Your task to perform on an android device: Go to settings Image 0: 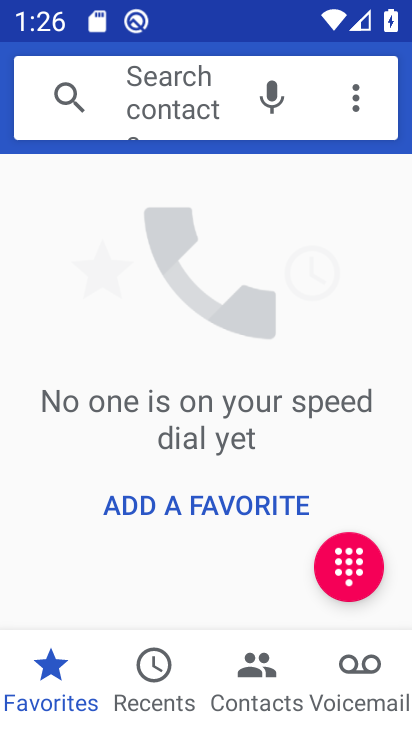
Step 0: click (350, 89)
Your task to perform on an android device: Go to settings Image 1: 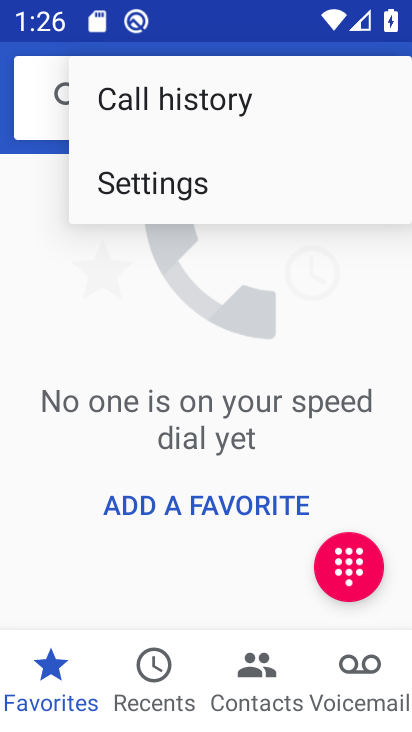
Step 1: press home button
Your task to perform on an android device: Go to settings Image 2: 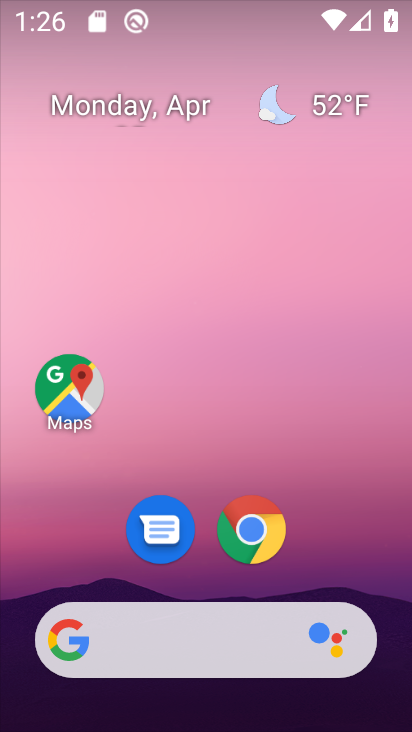
Step 2: drag from (368, 327) to (354, 179)
Your task to perform on an android device: Go to settings Image 3: 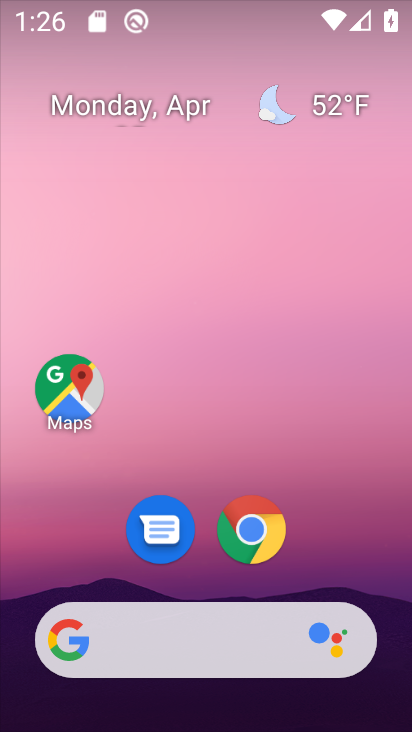
Step 3: drag from (389, 613) to (366, 201)
Your task to perform on an android device: Go to settings Image 4: 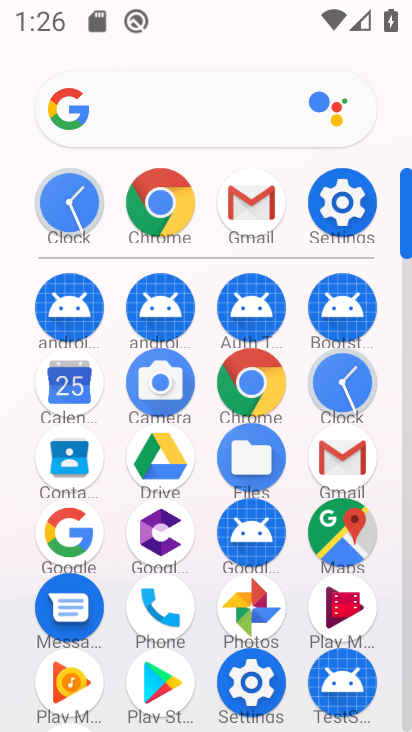
Step 4: click (341, 204)
Your task to perform on an android device: Go to settings Image 5: 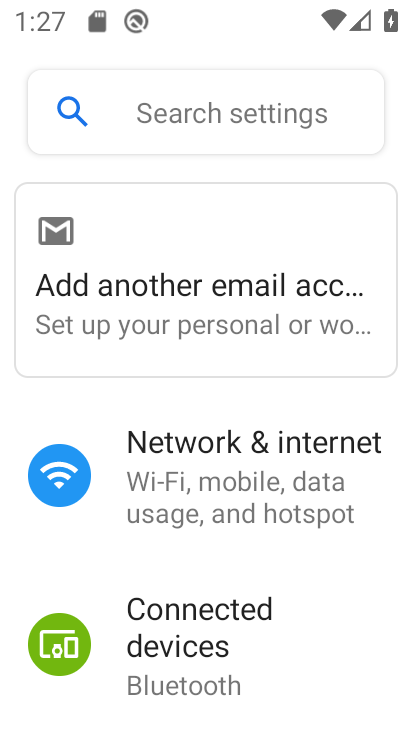
Step 5: task complete